Your task to perform on an android device: turn off sleep mode Image 0: 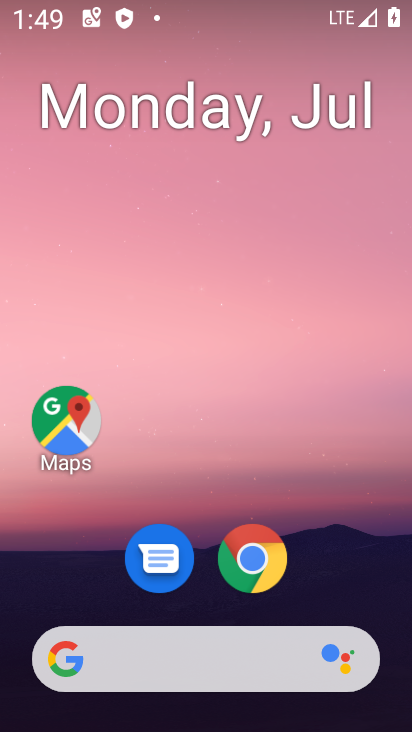
Step 0: press home button
Your task to perform on an android device: turn off sleep mode Image 1: 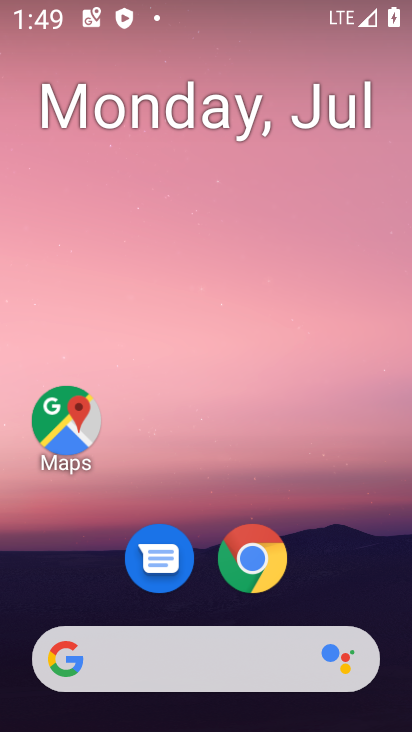
Step 1: drag from (357, 557) to (361, 42)
Your task to perform on an android device: turn off sleep mode Image 2: 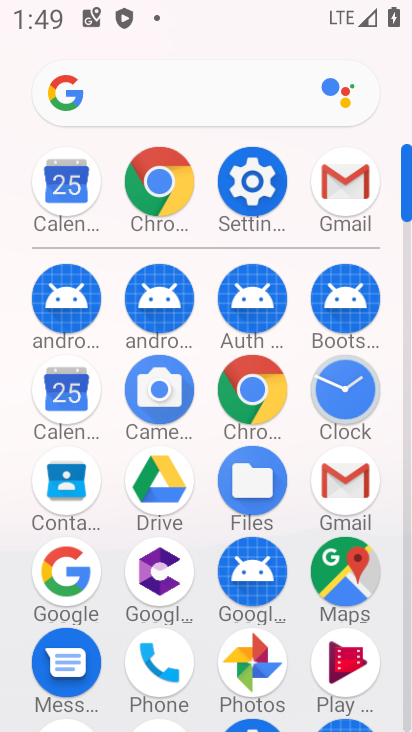
Step 2: click (257, 194)
Your task to perform on an android device: turn off sleep mode Image 3: 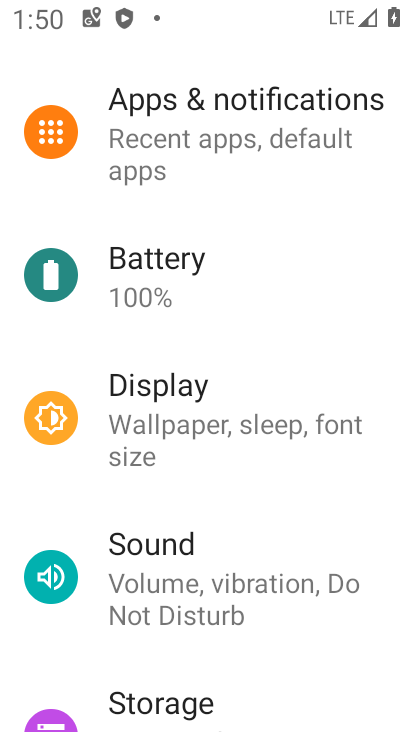
Step 3: drag from (321, 216) to (340, 378)
Your task to perform on an android device: turn off sleep mode Image 4: 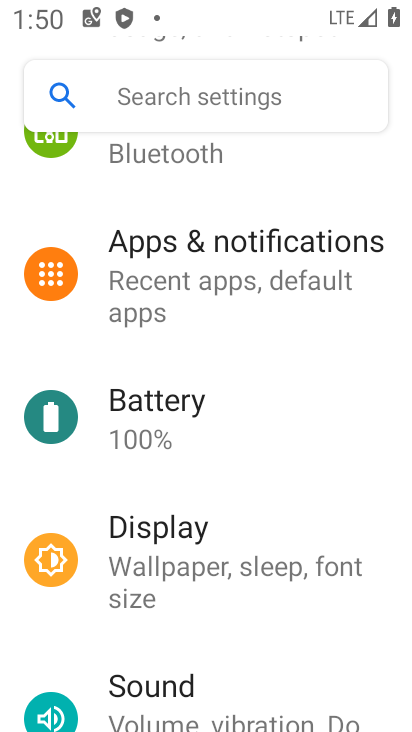
Step 4: drag from (345, 343) to (362, 473)
Your task to perform on an android device: turn off sleep mode Image 5: 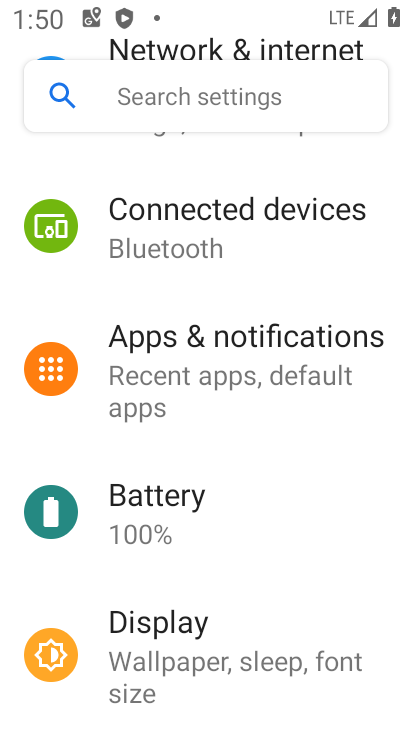
Step 5: drag from (366, 375) to (367, 527)
Your task to perform on an android device: turn off sleep mode Image 6: 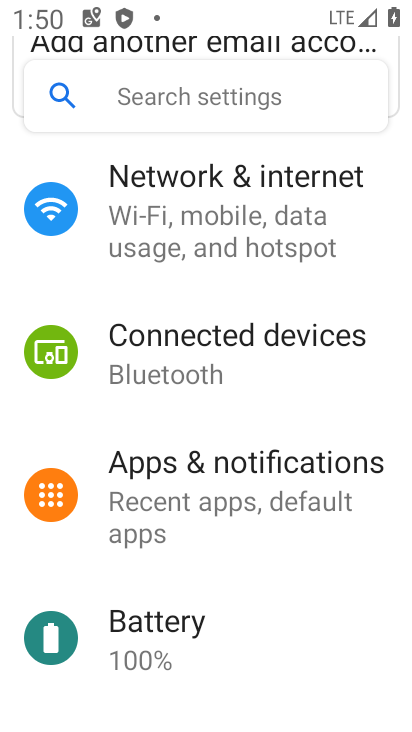
Step 6: drag from (374, 230) to (373, 391)
Your task to perform on an android device: turn off sleep mode Image 7: 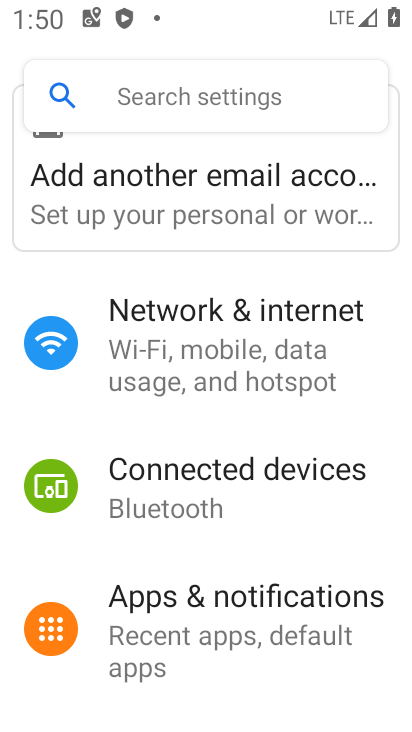
Step 7: drag from (356, 524) to (363, 406)
Your task to perform on an android device: turn off sleep mode Image 8: 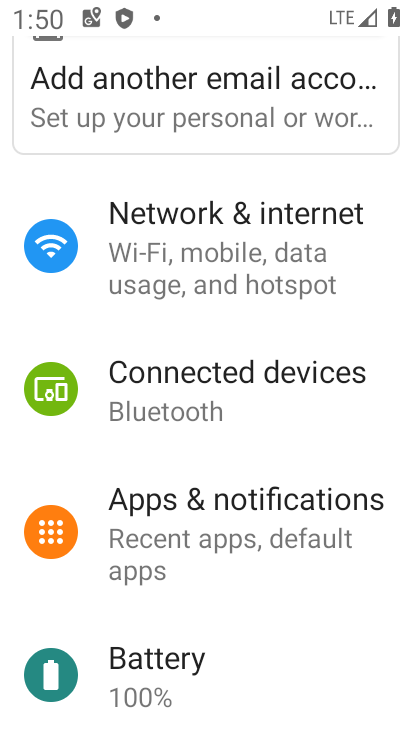
Step 8: drag from (339, 570) to (336, 429)
Your task to perform on an android device: turn off sleep mode Image 9: 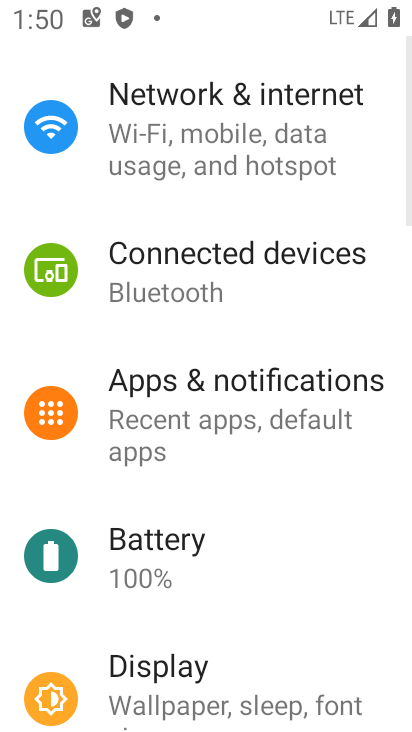
Step 9: drag from (318, 583) to (317, 457)
Your task to perform on an android device: turn off sleep mode Image 10: 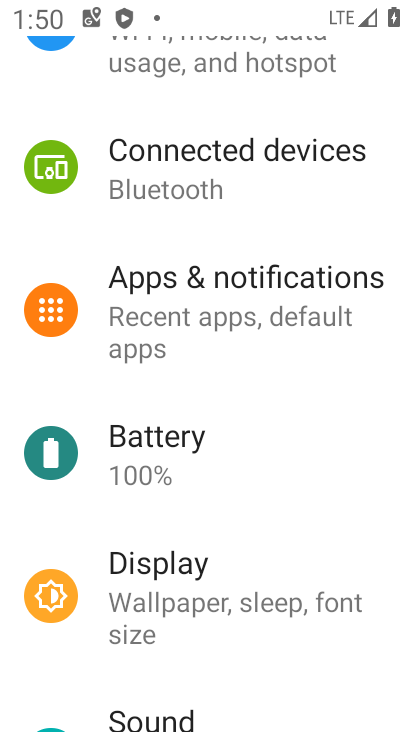
Step 10: drag from (314, 632) to (309, 496)
Your task to perform on an android device: turn off sleep mode Image 11: 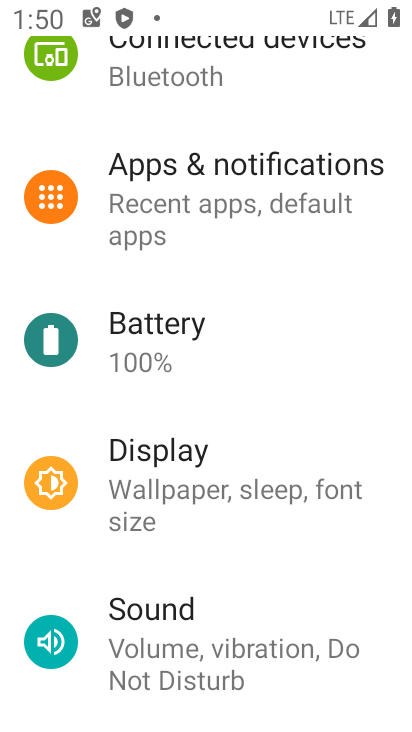
Step 11: drag from (305, 622) to (306, 487)
Your task to perform on an android device: turn off sleep mode Image 12: 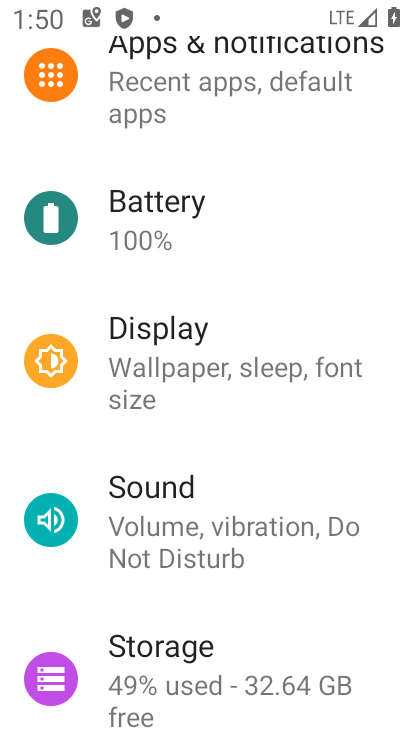
Step 12: drag from (305, 617) to (318, 486)
Your task to perform on an android device: turn off sleep mode Image 13: 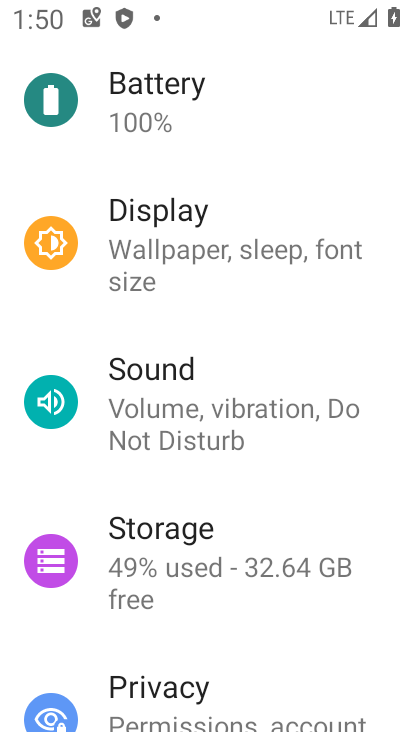
Step 13: drag from (308, 627) to (301, 470)
Your task to perform on an android device: turn off sleep mode Image 14: 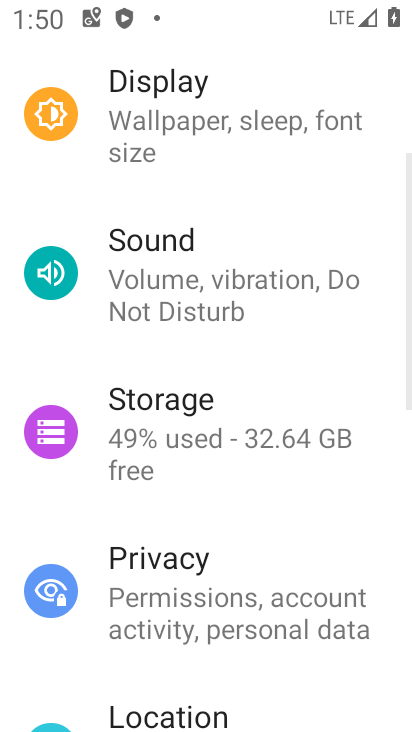
Step 14: drag from (301, 652) to (338, 458)
Your task to perform on an android device: turn off sleep mode Image 15: 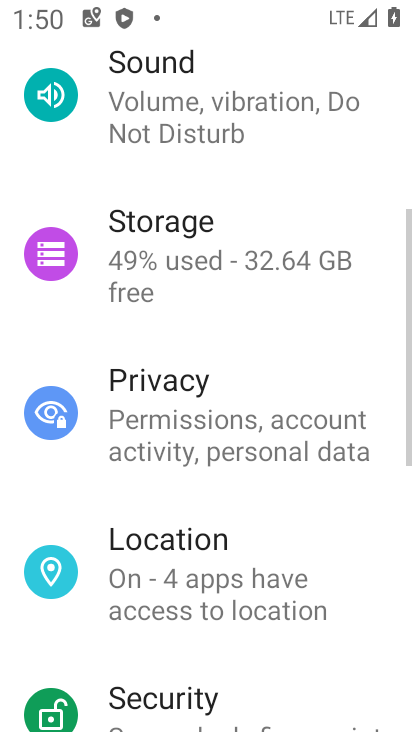
Step 15: drag from (336, 645) to (334, 491)
Your task to perform on an android device: turn off sleep mode Image 16: 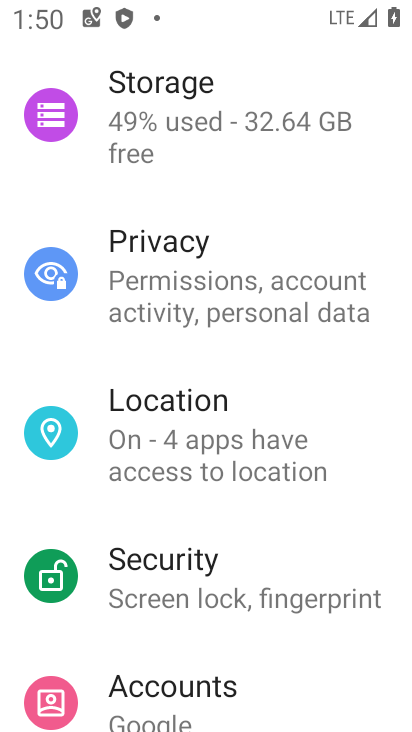
Step 16: drag from (333, 657) to (338, 458)
Your task to perform on an android device: turn off sleep mode Image 17: 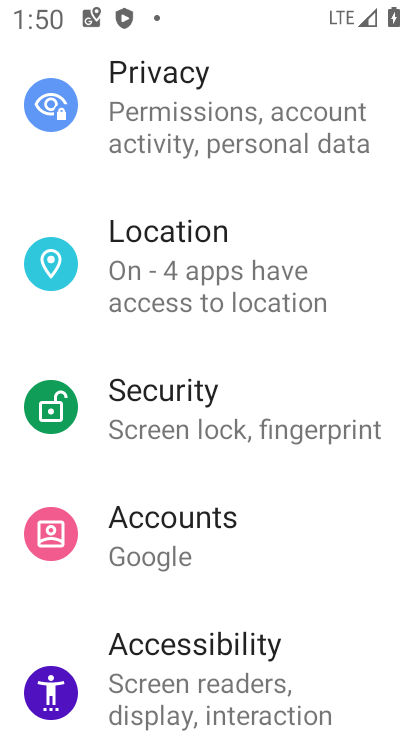
Step 17: drag from (325, 637) to (336, 458)
Your task to perform on an android device: turn off sleep mode Image 18: 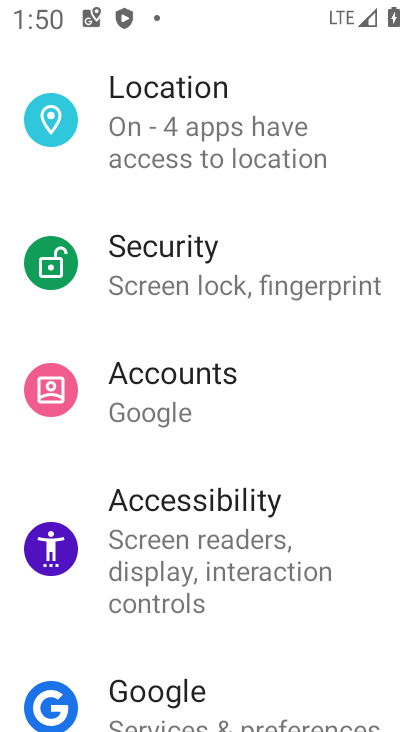
Step 18: drag from (347, 314) to (329, 475)
Your task to perform on an android device: turn off sleep mode Image 19: 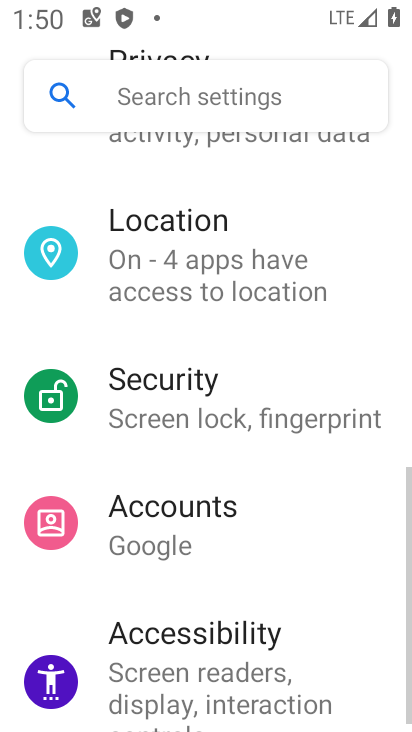
Step 19: drag from (347, 198) to (347, 452)
Your task to perform on an android device: turn off sleep mode Image 20: 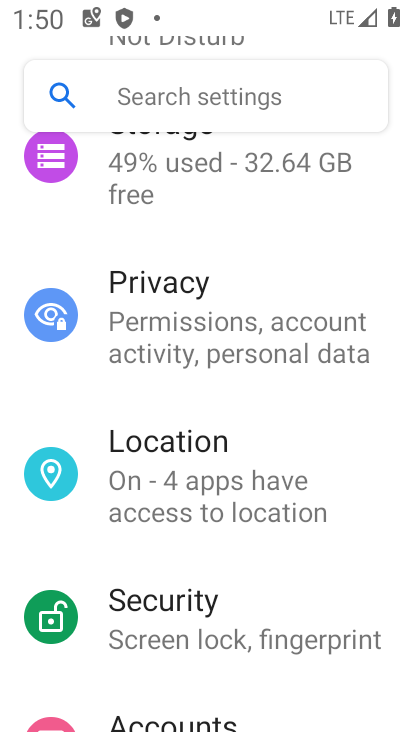
Step 20: drag from (355, 206) to (354, 501)
Your task to perform on an android device: turn off sleep mode Image 21: 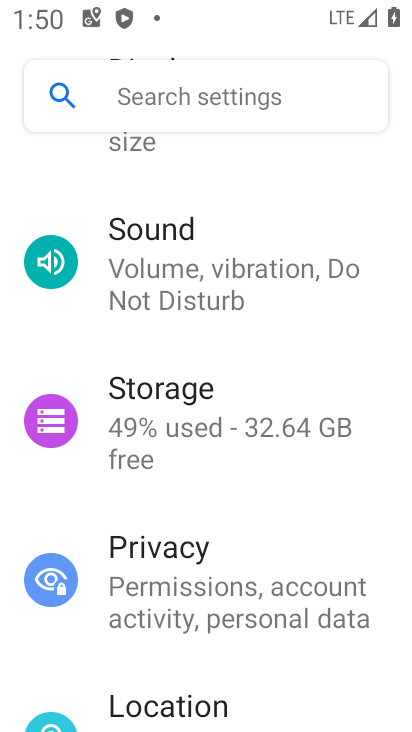
Step 21: drag from (343, 174) to (339, 395)
Your task to perform on an android device: turn off sleep mode Image 22: 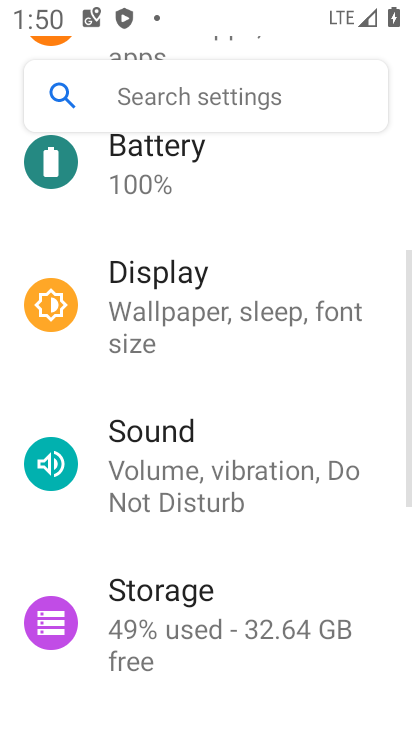
Step 22: click (321, 316)
Your task to perform on an android device: turn off sleep mode Image 23: 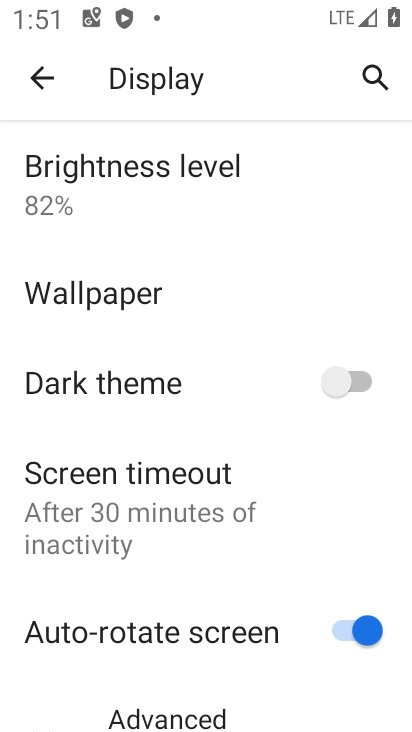
Step 23: drag from (299, 522) to (291, 295)
Your task to perform on an android device: turn off sleep mode Image 24: 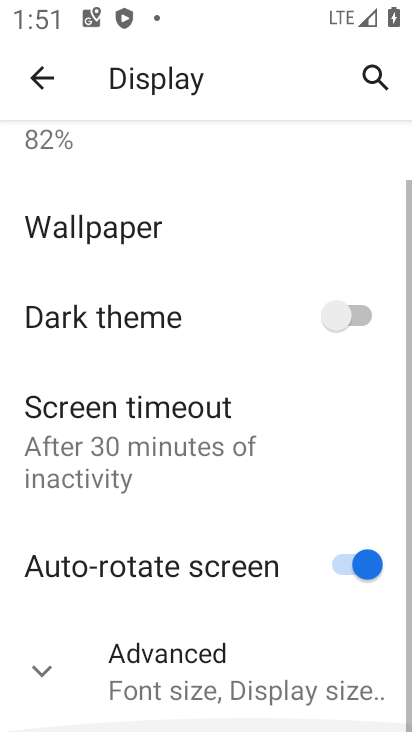
Step 24: click (250, 673)
Your task to perform on an android device: turn off sleep mode Image 25: 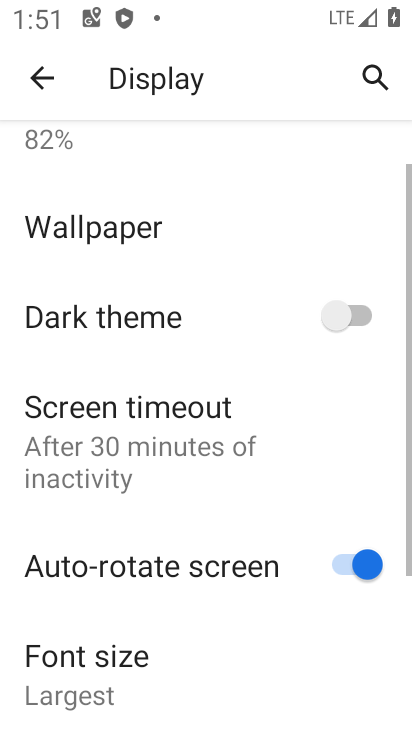
Step 25: task complete